Your task to perform on an android device: Open settings on Google Maps Image 0: 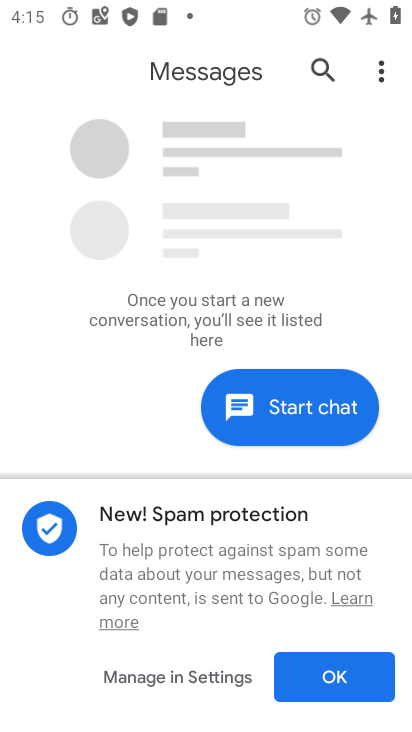
Step 0: press home button
Your task to perform on an android device: Open settings on Google Maps Image 1: 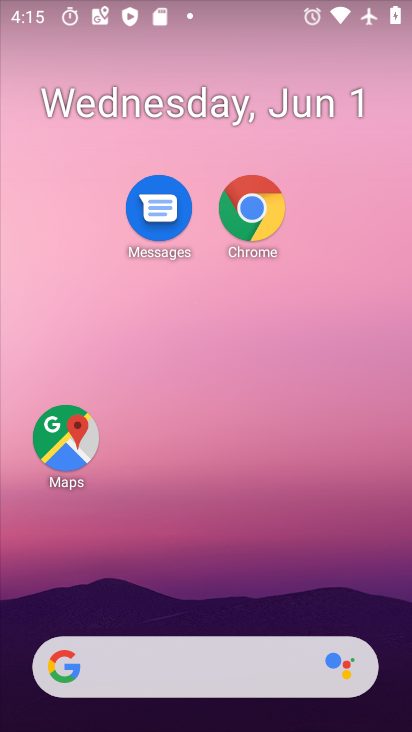
Step 1: click (56, 450)
Your task to perform on an android device: Open settings on Google Maps Image 2: 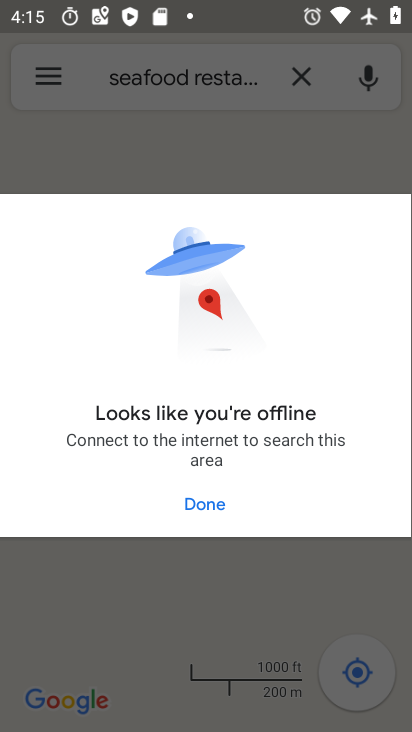
Step 2: click (181, 509)
Your task to perform on an android device: Open settings on Google Maps Image 3: 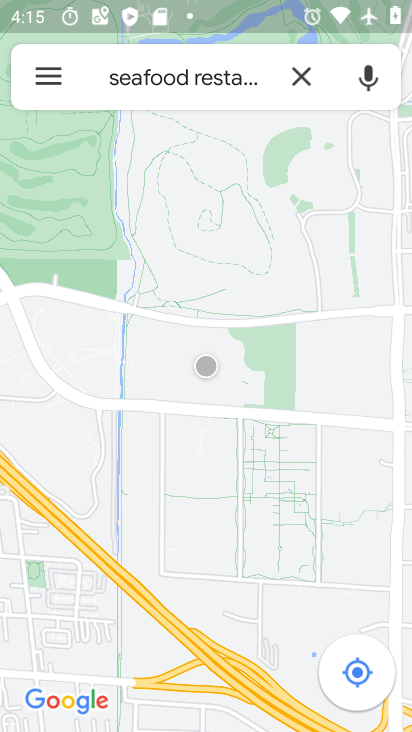
Step 3: click (51, 73)
Your task to perform on an android device: Open settings on Google Maps Image 4: 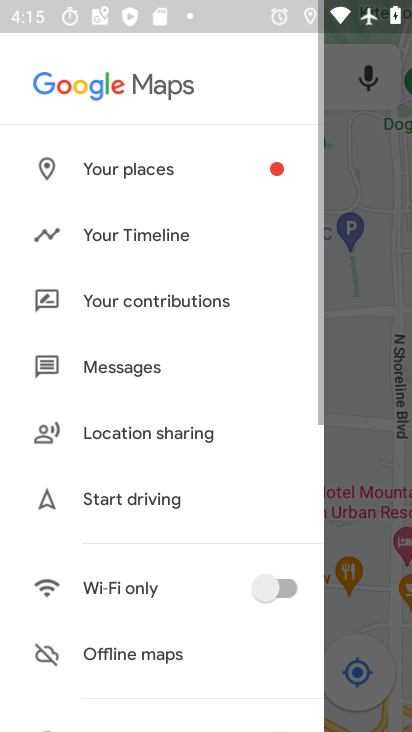
Step 4: drag from (147, 665) to (156, 309)
Your task to perform on an android device: Open settings on Google Maps Image 5: 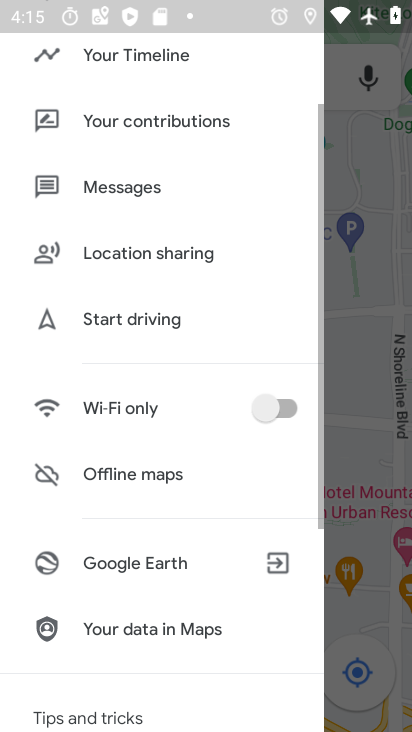
Step 5: drag from (167, 533) to (186, 295)
Your task to perform on an android device: Open settings on Google Maps Image 6: 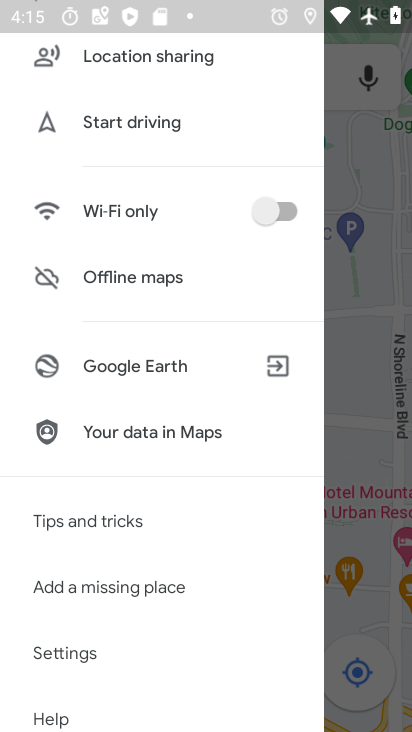
Step 6: click (92, 646)
Your task to perform on an android device: Open settings on Google Maps Image 7: 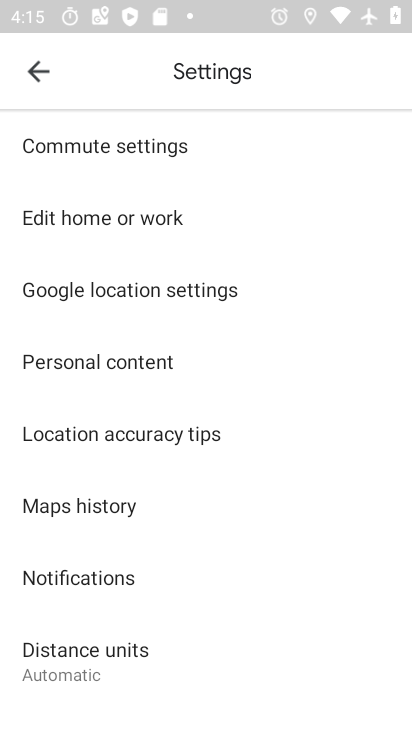
Step 7: task complete